Your task to perform on an android device: turn on priority inbox in the gmail app Image 0: 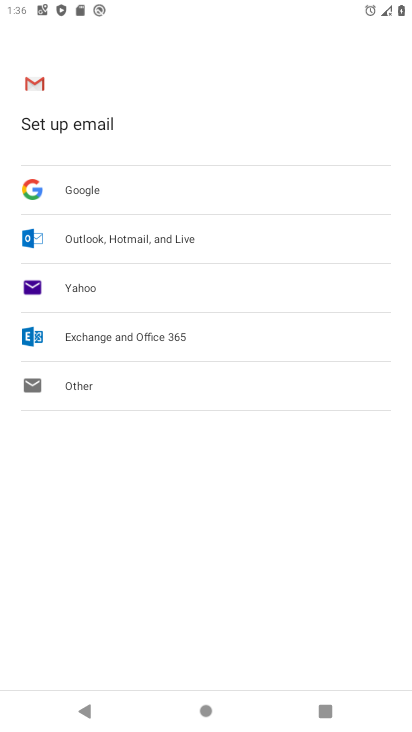
Step 0: press home button
Your task to perform on an android device: turn on priority inbox in the gmail app Image 1: 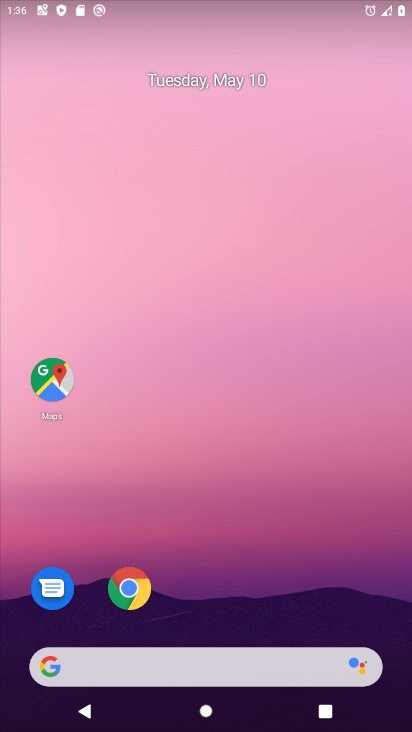
Step 1: drag from (237, 551) to (259, 271)
Your task to perform on an android device: turn on priority inbox in the gmail app Image 2: 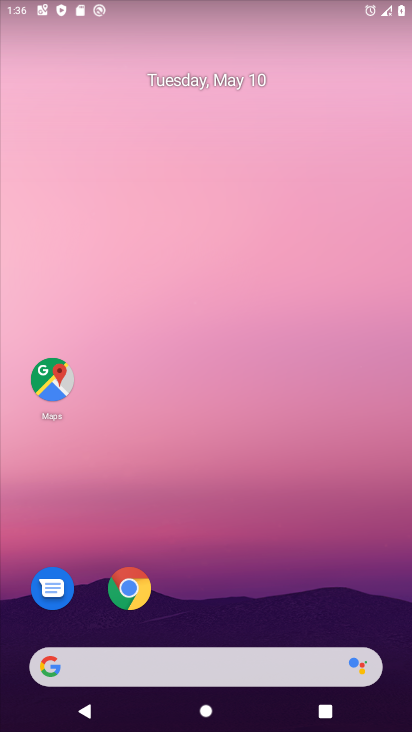
Step 2: drag from (219, 596) to (251, 184)
Your task to perform on an android device: turn on priority inbox in the gmail app Image 3: 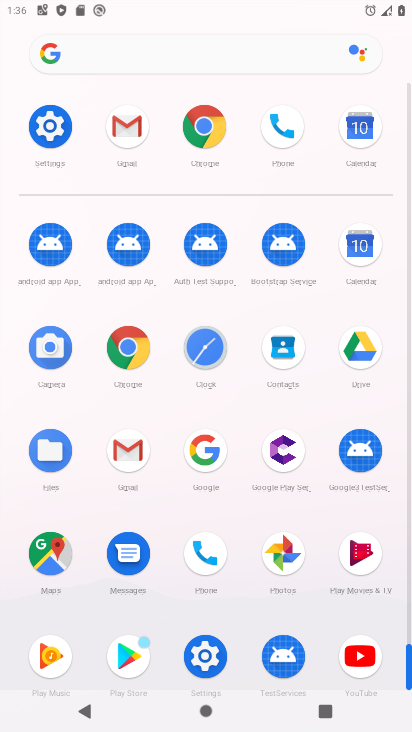
Step 3: click (121, 127)
Your task to perform on an android device: turn on priority inbox in the gmail app Image 4: 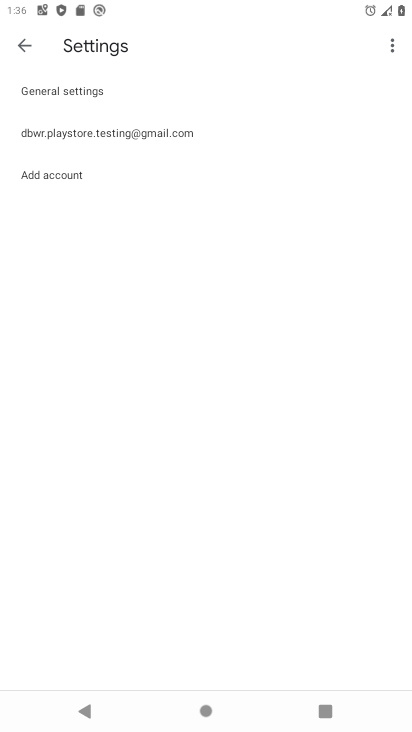
Step 4: click (99, 137)
Your task to perform on an android device: turn on priority inbox in the gmail app Image 5: 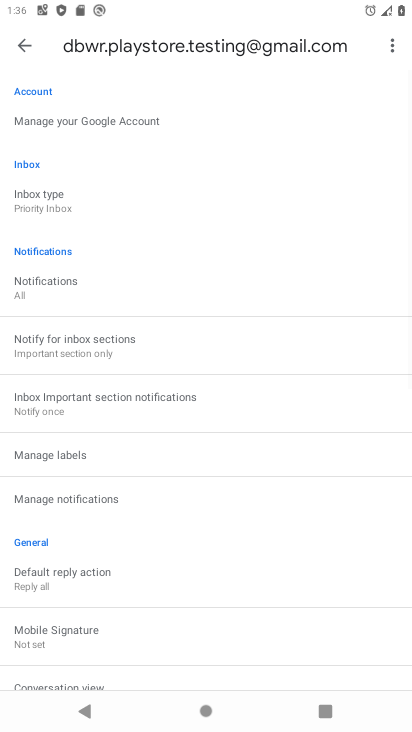
Step 5: click (58, 207)
Your task to perform on an android device: turn on priority inbox in the gmail app Image 6: 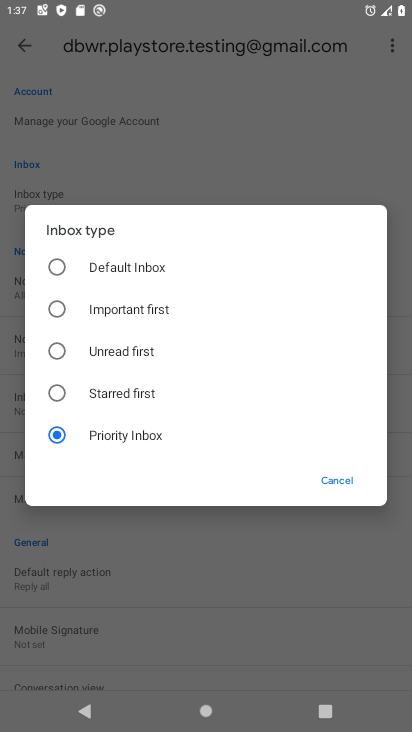
Step 6: task complete